Your task to perform on an android device: remove spam from my inbox in the gmail app Image 0: 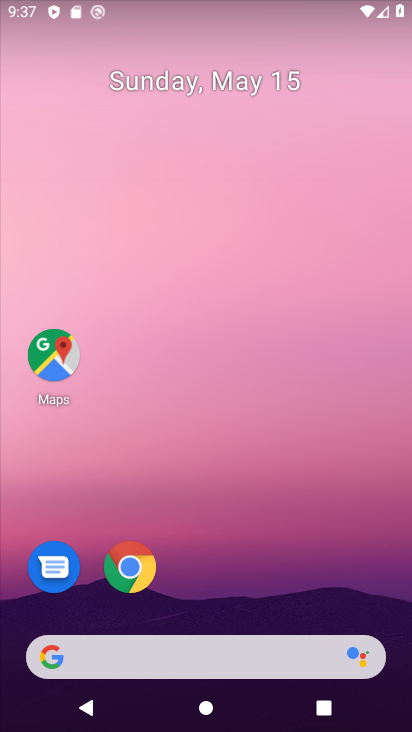
Step 0: drag from (257, 595) to (196, 68)
Your task to perform on an android device: remove spam from my inbox in the gmail app Image 1: 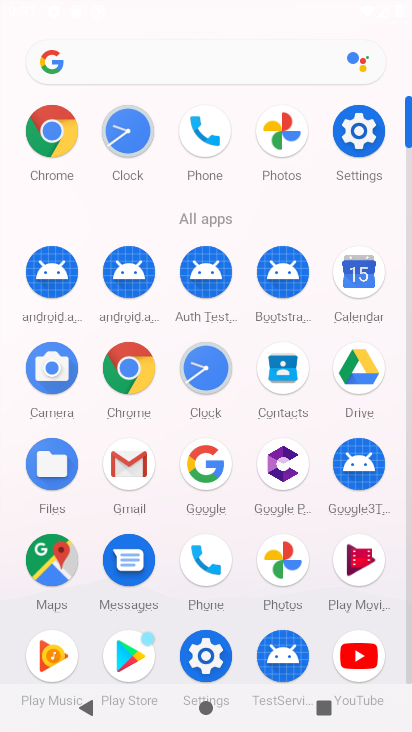
Step 1: click (126, 449)
Your task to perform on an android device: remove spam from my inbox in the gmail app Image 2: 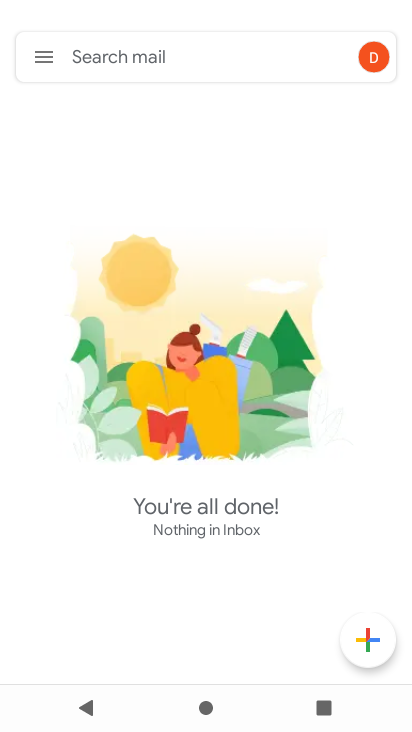
Step 2: click (35, 58)
Your task to perform on an android device: remove spam from my inbox in the gmail app Image 3: 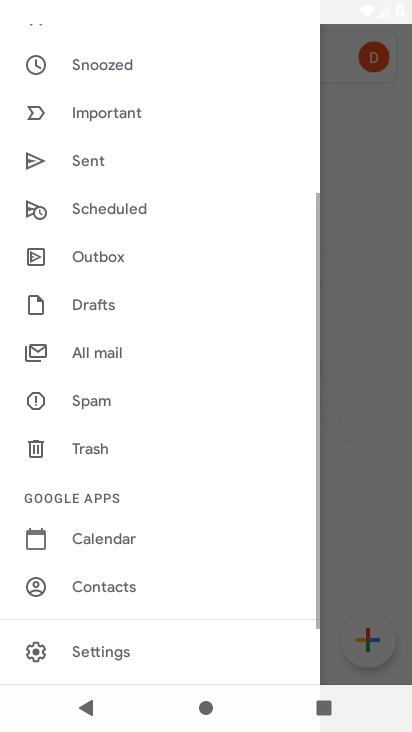
Step 3: drag from (203, 578) to (228, 242)
Your task to perform on an android device: remove spam from my inbox in the gmail app Image 4: 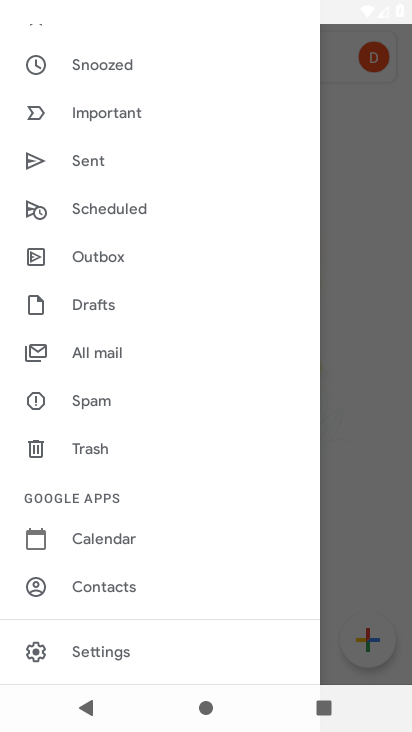
Step 4: drag from (188, 196) to (190, 643)
Your task to perform on an android device: remove spam from my inbox in the gmail app Image 5: 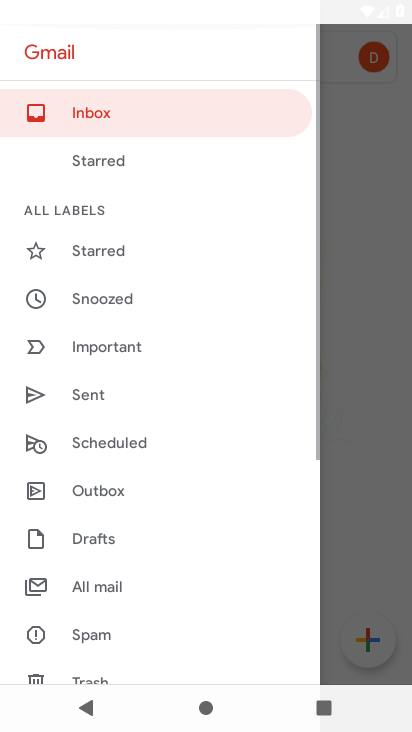
Step 5: click (127, 116)
Your task to perform on an android device: remove spam from my inbox in the gmail app Image 6: 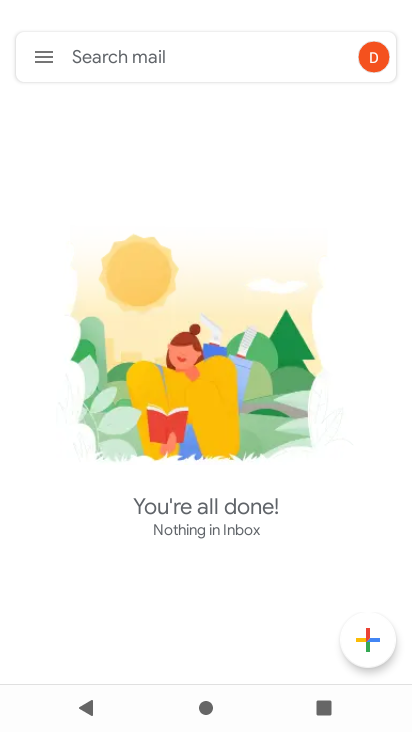
Step 6: task complete